Your task to perform on an android device: Open privacy settings Image 0: 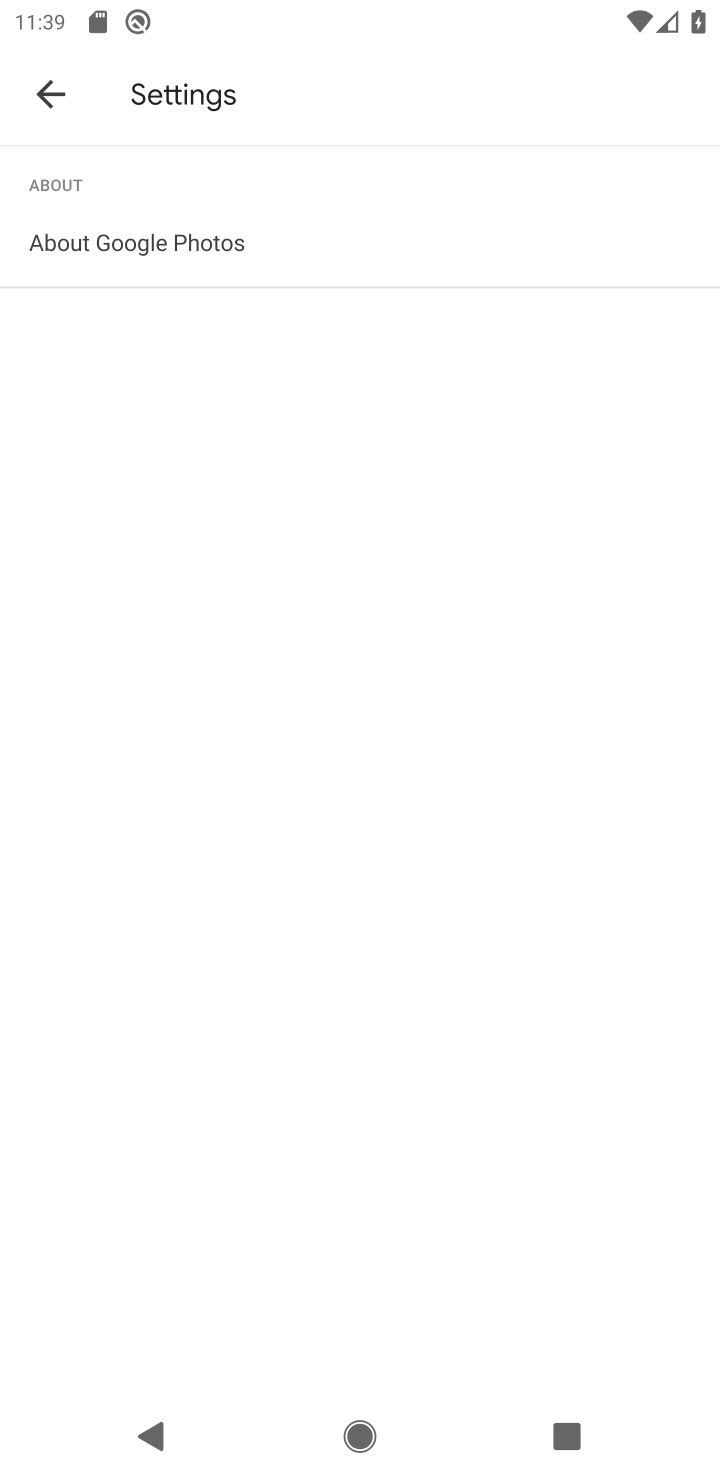
Step 0: press home button
Your task to perform on an android device: Open privacy settings Image 1: 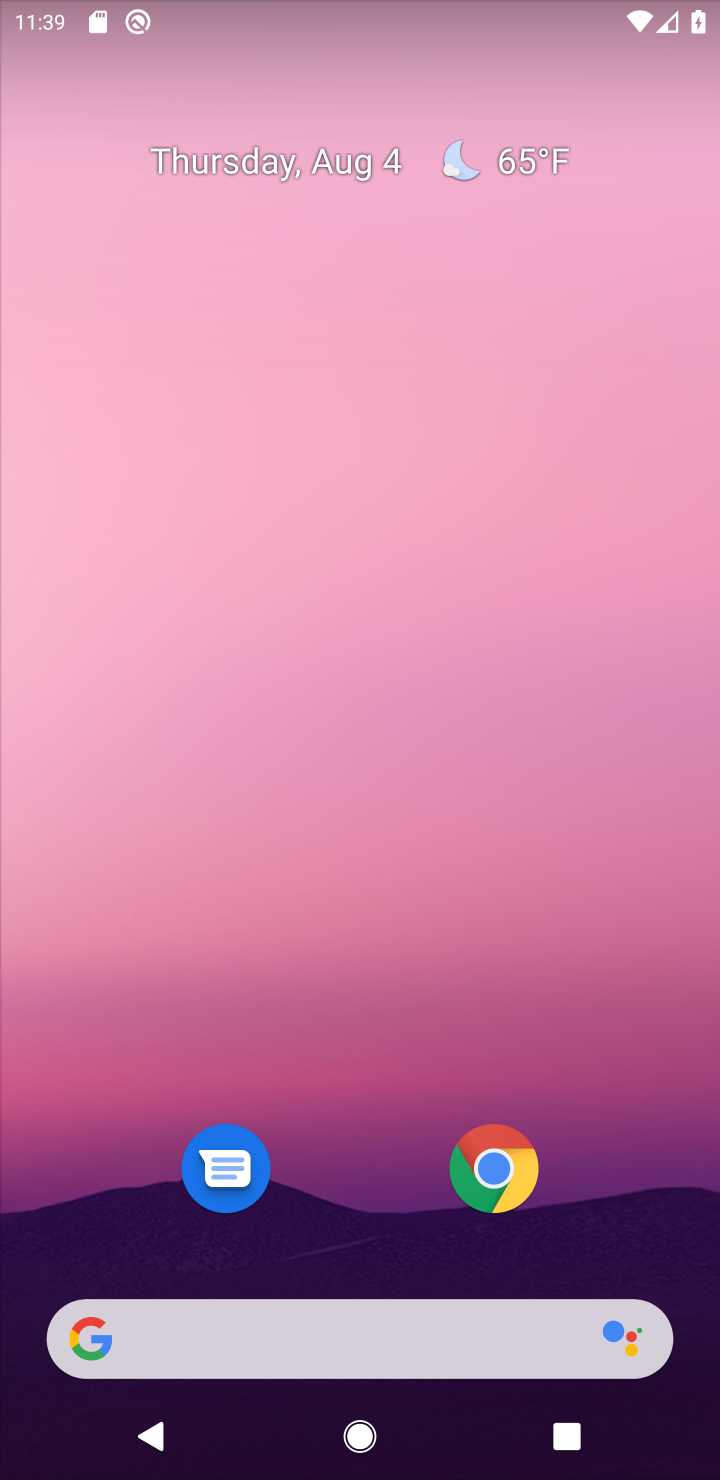
Step 1: drag from (323, 1225) to (426, 0)
Your task to perform on an android device: Open privacy settings Image 2: 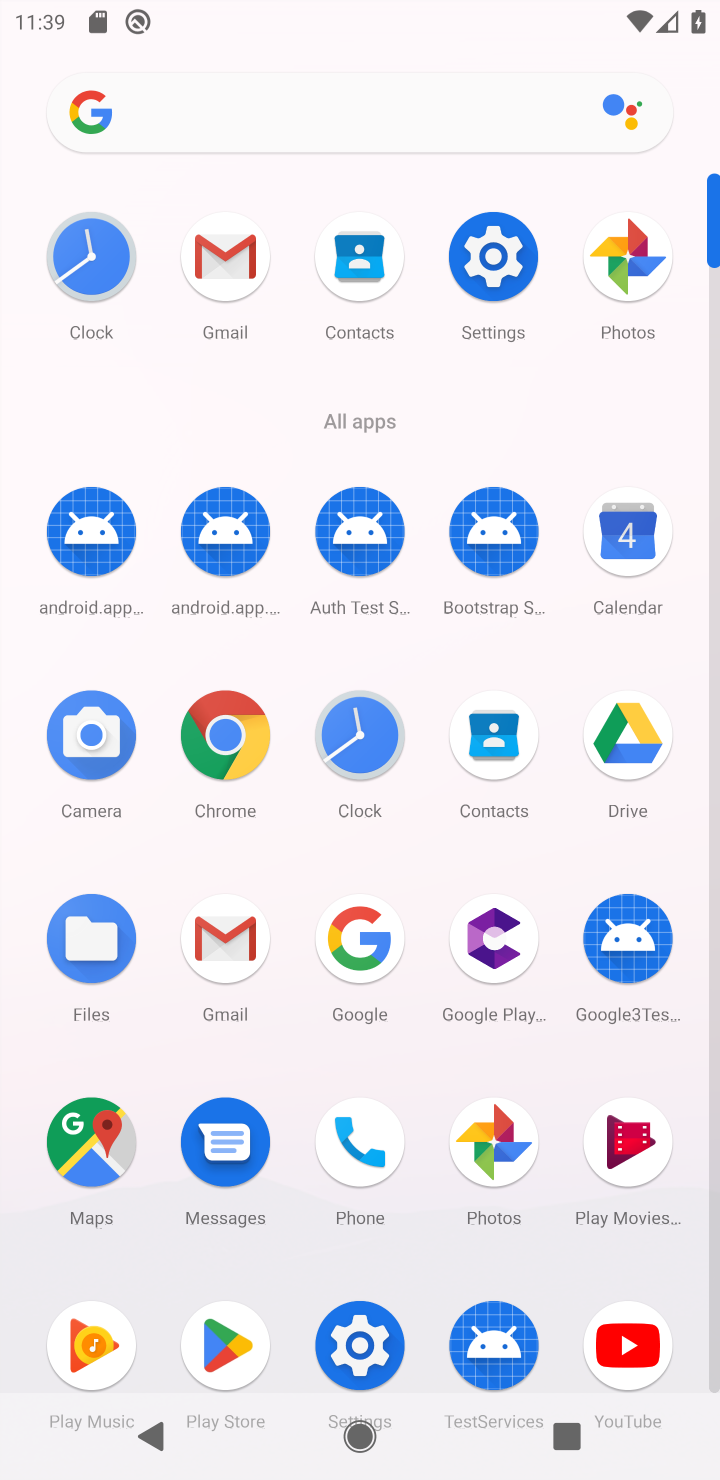
Step 2: click (330, 1330)
Your task to perform on an android device: Open privacy settings Image 3: 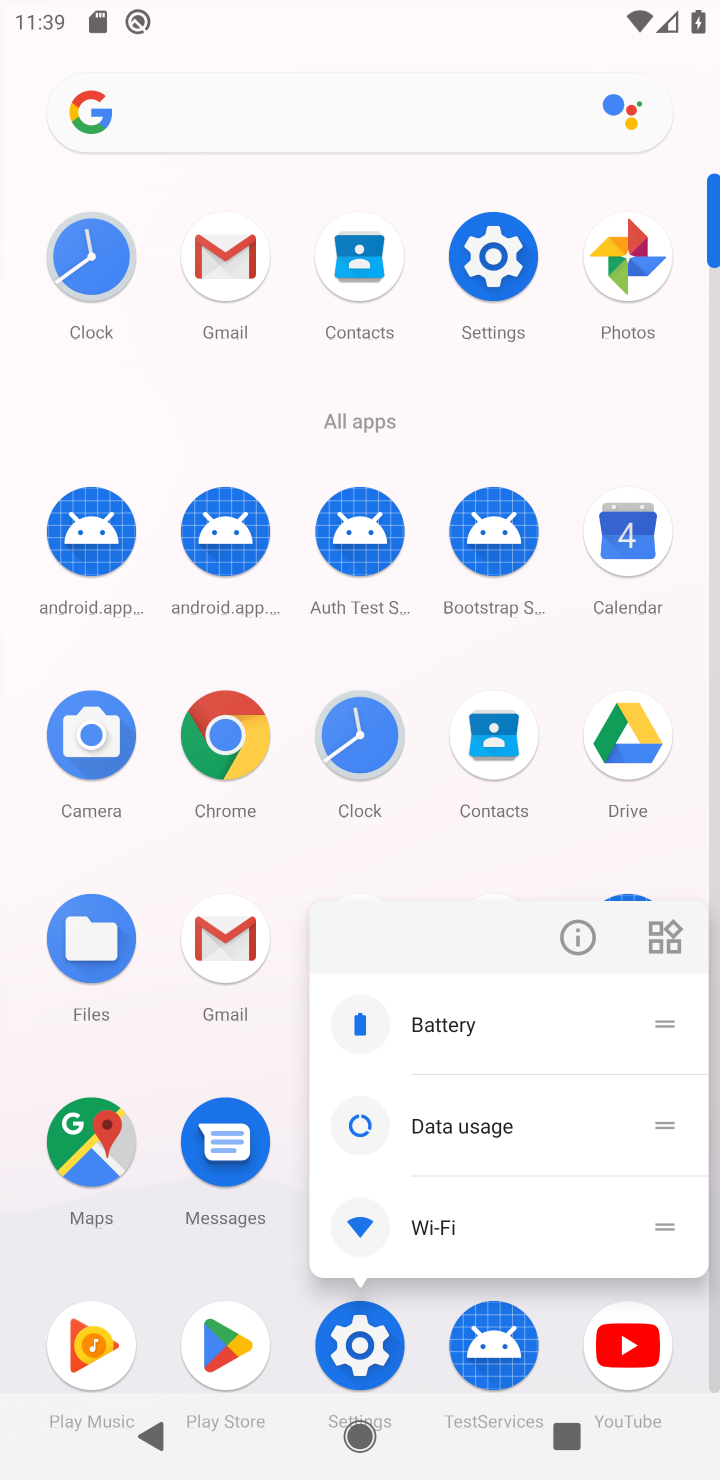
Step 3: click (330, 1330)
Your task to perform on an android device: Open privacy settings Image 4: 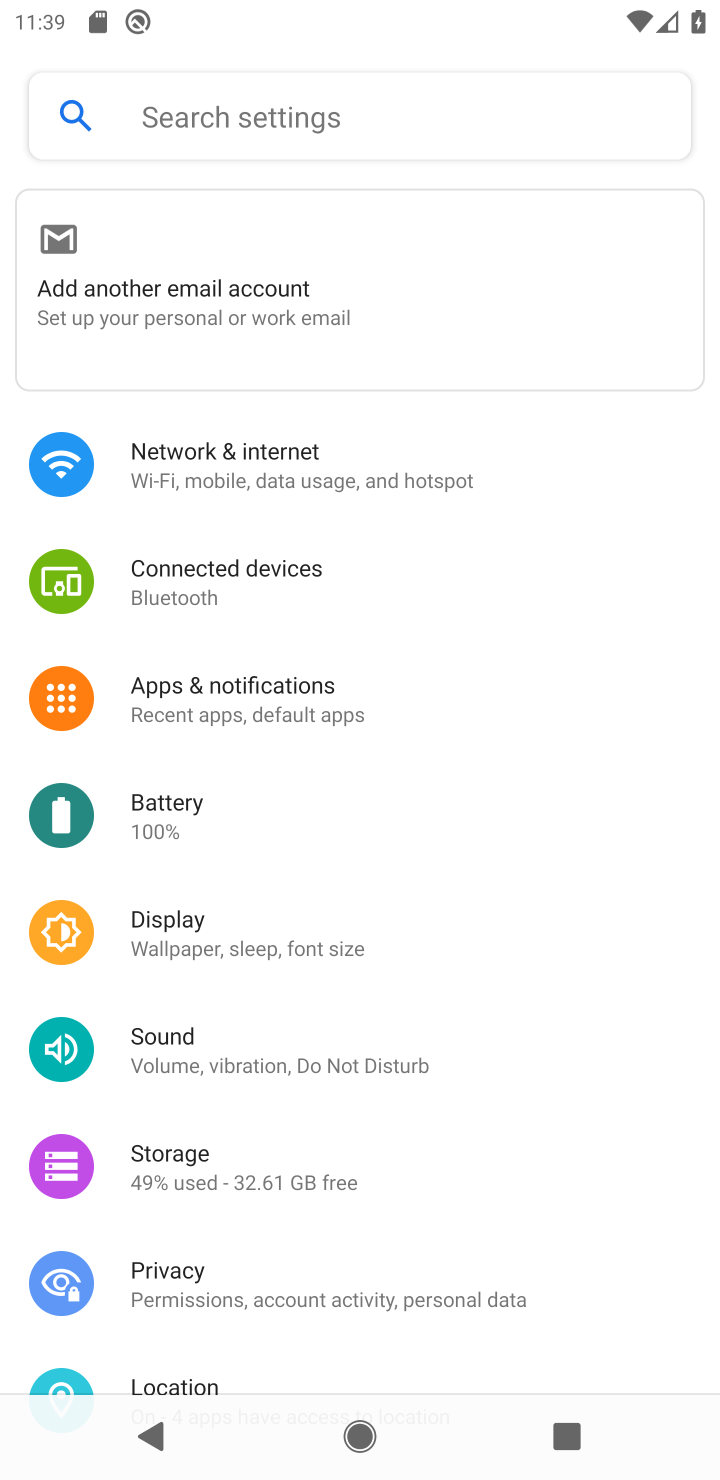
Step 4: click (205, 1281)
Your task to perform on an android device: Open privacy settings Image 5: 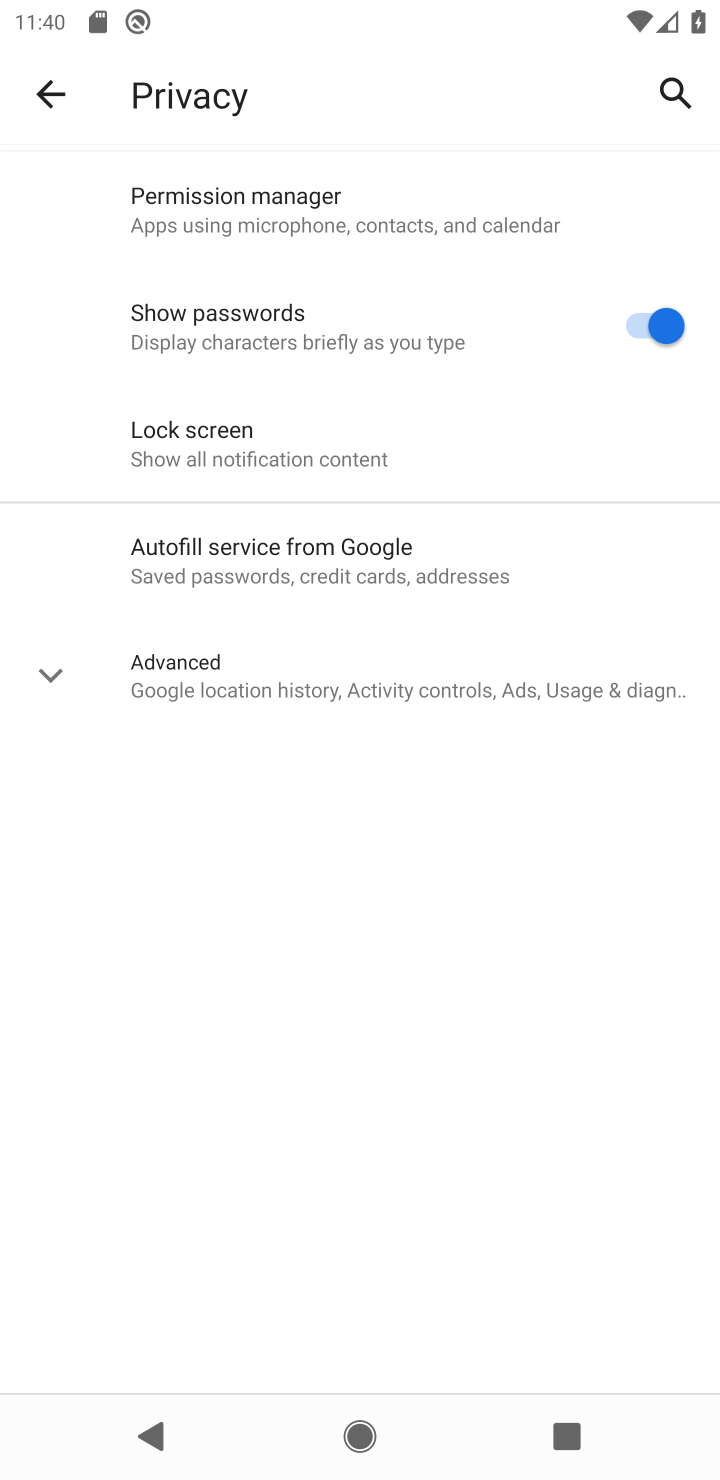
Step 5: task complete